Your task to perform on an android device: turn on the 24-hour format for clock Image 0: 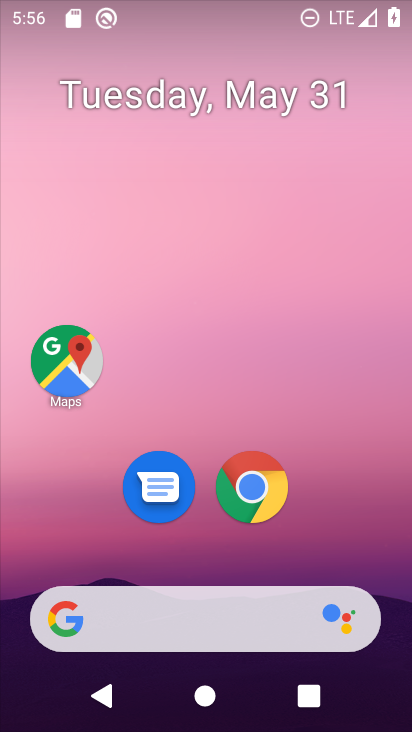
Step 0: drag from (349, 497) to (274, 168)
Your task to perform on an android device: turn on the 24-hour format for clock Image 1: 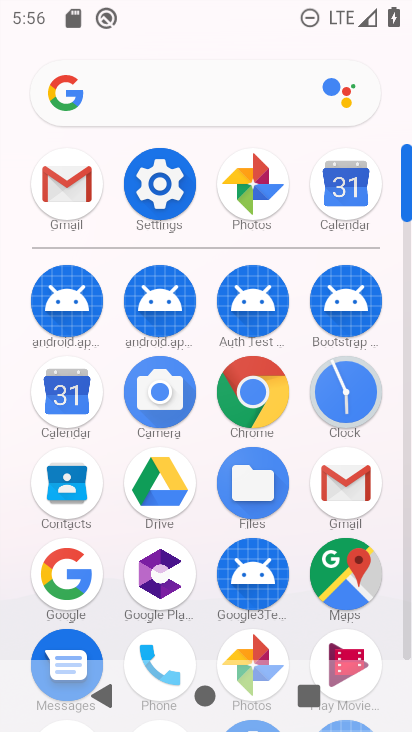
Step 1: click (339, 387)
Your task to perform on an android device: turn on the 24-hour format for clock Image 2: 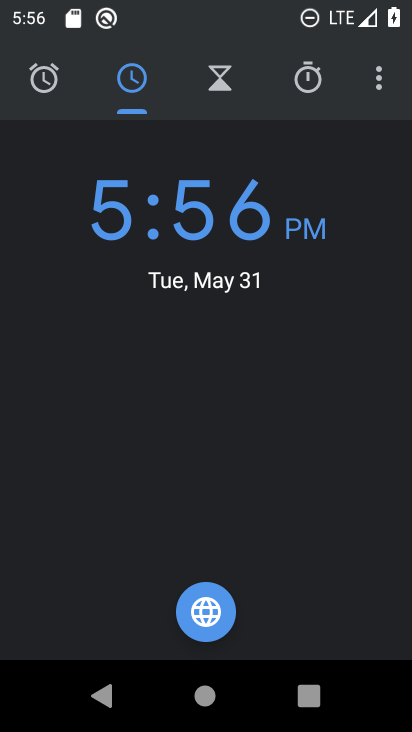
Step 2: click (385, 75)
Your task to perform on an android device: turn on the 24-hour format for clock Image 3: 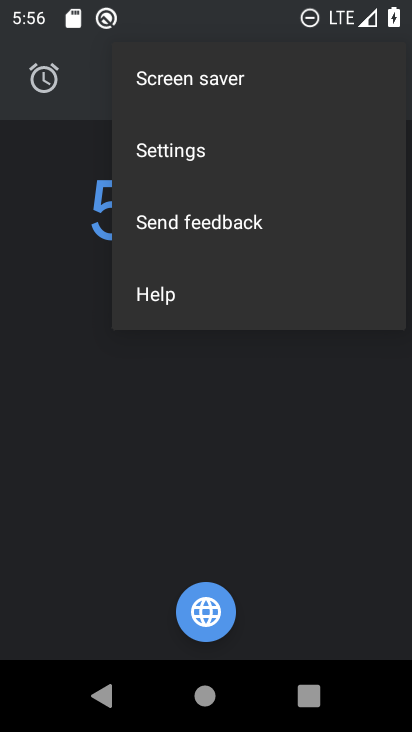
Step 3: click (182, 150)
Your task to perform on an android device: turn on the 24-hour format for clock Image 4: 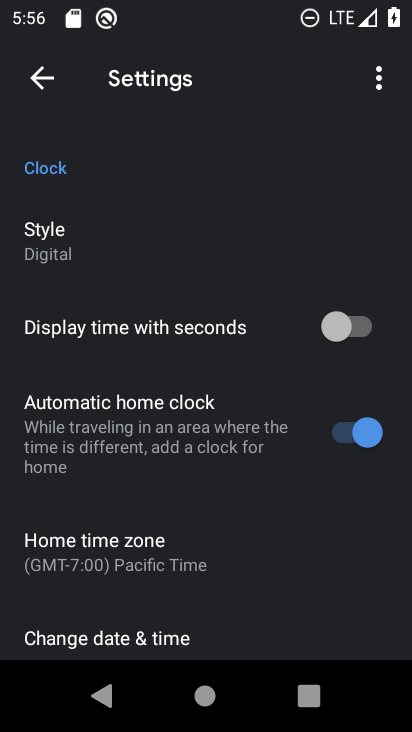
Step 4: drag from (182, 489) to (158, 175)
Your task to perform on an android device: turn on the 24-hour format for clock Image 5: 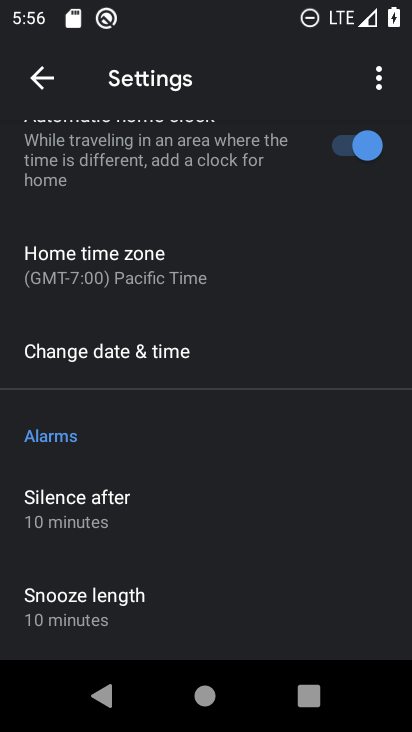
Step 5: click (114, 346)
Your task to perform on an android device: turn on the 24-hour format for clock Image 6: 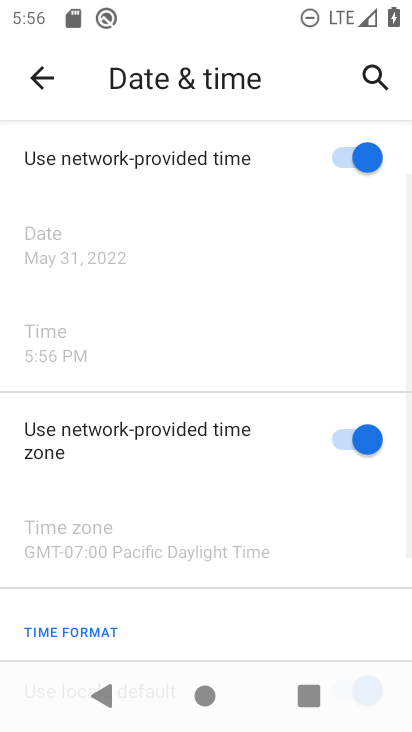
Step 6: drag from (281, 515) to (258, 148)
Your task to perform on an android device: turn on the 24-hour format for clock Image 7: 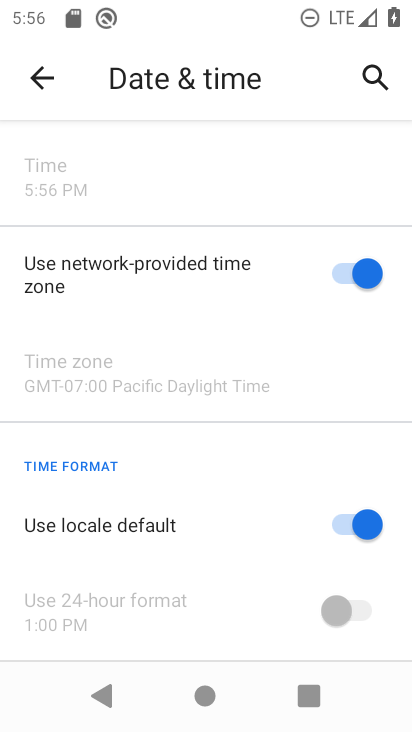
Step 7: click (370, 525)
Your task to perform on an android device: turn on the 24-hour format for clock Image 8: 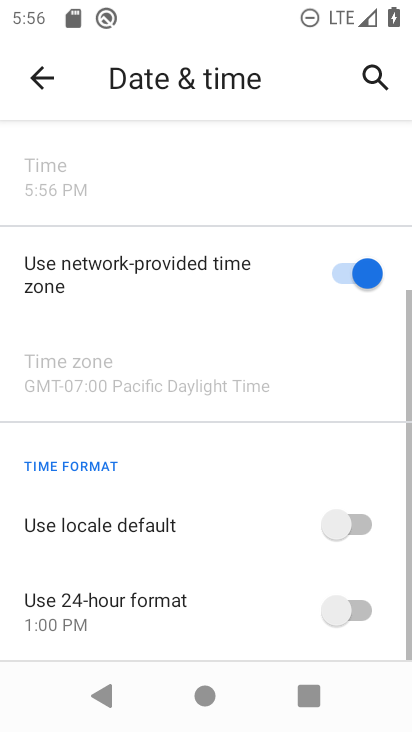
Step 8: click (342, 596)
Your task to perform on an android device: turn on the 24-hour format for clock Image 9: 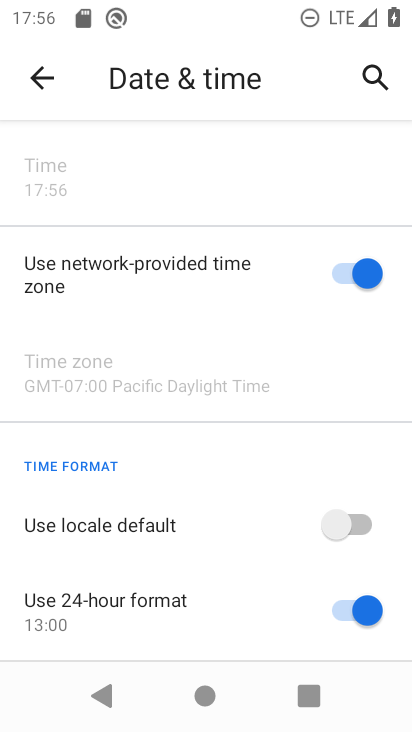
Step 9: task complete